Your task to perform on an android device: Open Google Image 0: 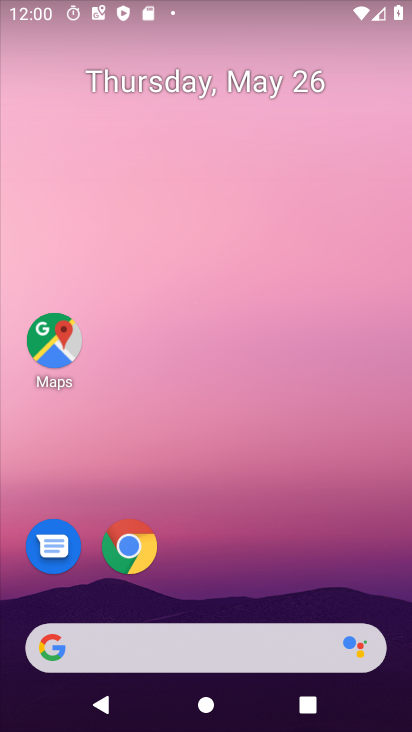
Step 0: drag from (243, 584) to (287, 17)
Your task to perform on an android device: Open Google Image 1: 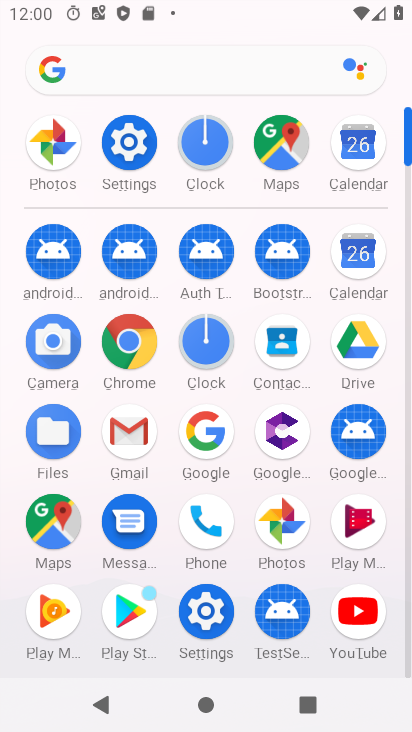
Step 1: click (201, 428)
Your task to perform on an android device: Open Google Image 2: 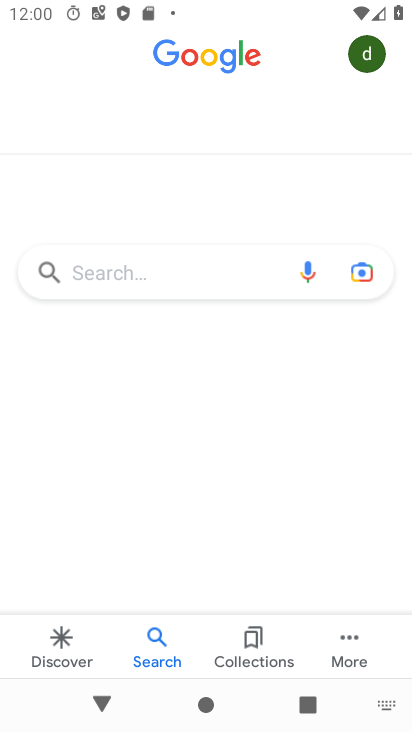
Step 2: task complete